Your task to perform on an android device: check out phone information Image 0: 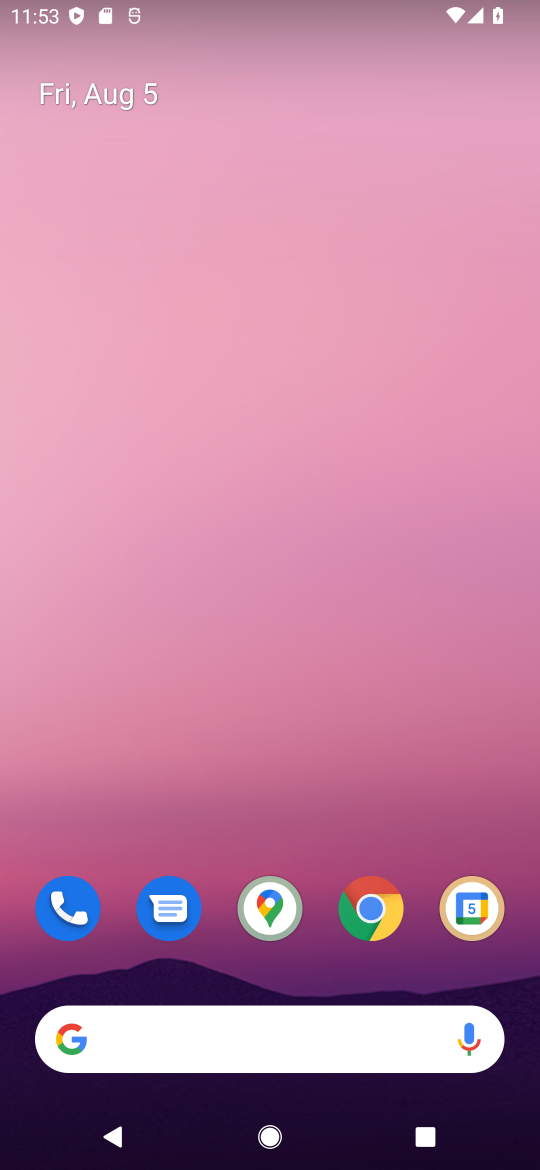
Step 0: drag from (427, 863) to (395, 125)
Your task to perform on an android device: check out phone information Image 1: 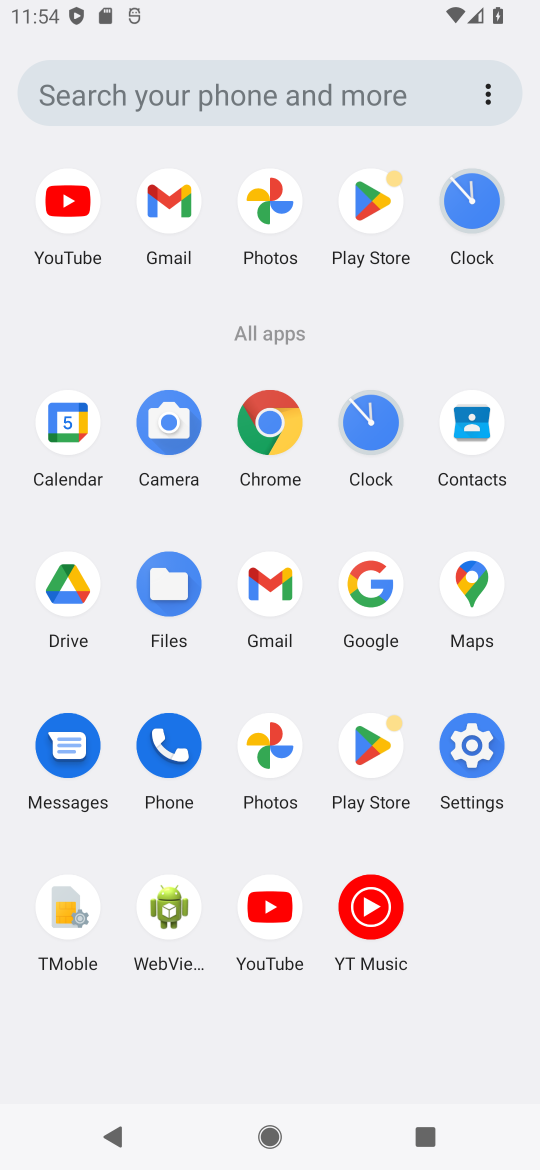
Step 1: click (172, 757)
Your task to perform on an android device: check out phone information Image 2: 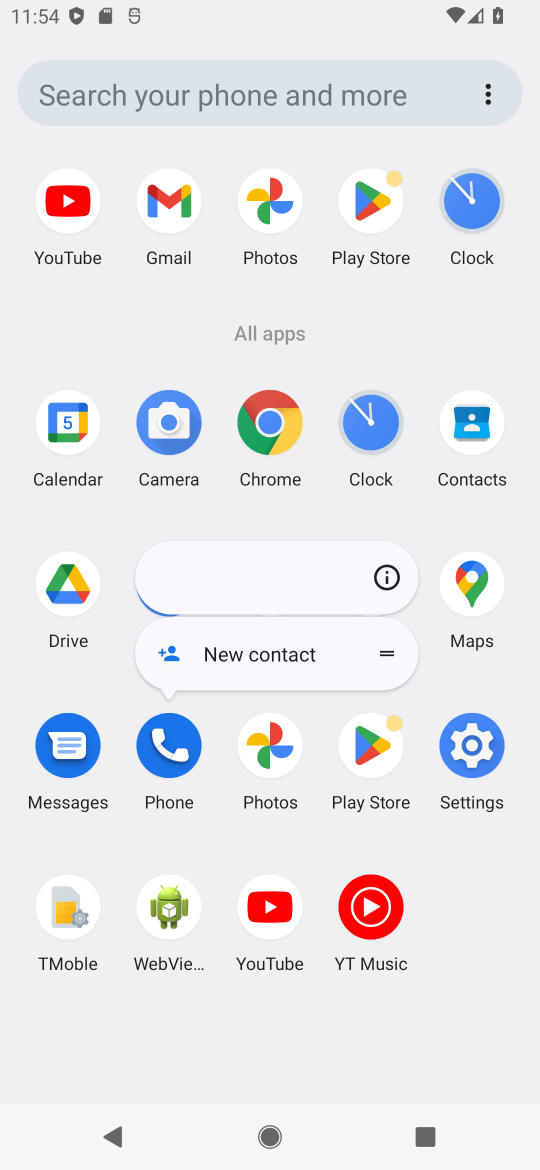
Step 2: click (392, 569)
Your task to perform on an android device: check out phone information Image 3: 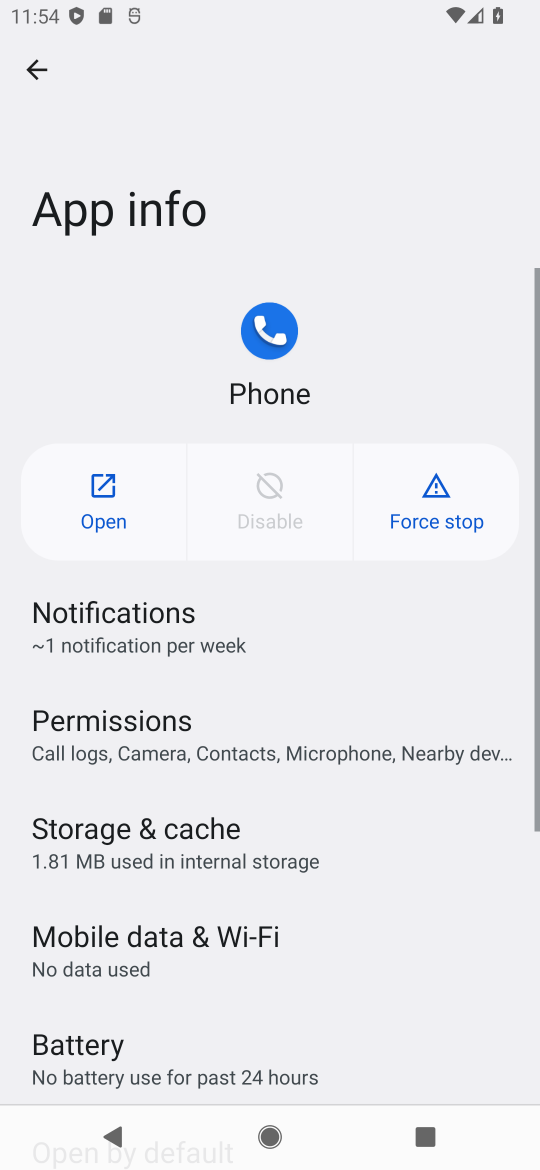
Step 3: task complete